Your task to perform on an android device: Clear the shopping cart on amazon. Search for "bose soundlink" on amazon, select the first entry, add it to the cart, then select checkout. Image 0: 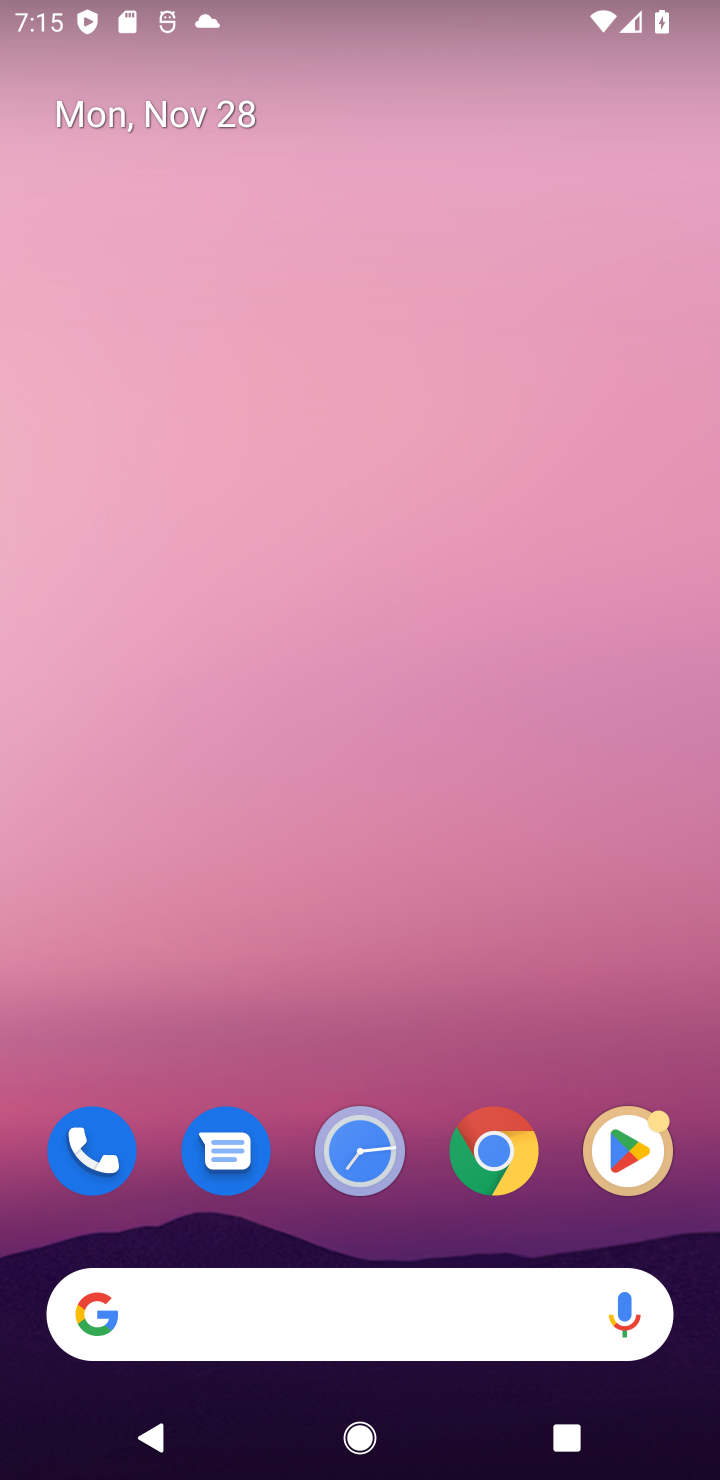
Step 0: click (429, 1322)
Your task to perform on an android device: Clear the shopping cart on amazon. Search for "bose soundlink" on amazon, select the first entry, add it to the cart, then select checkout. Image 1: 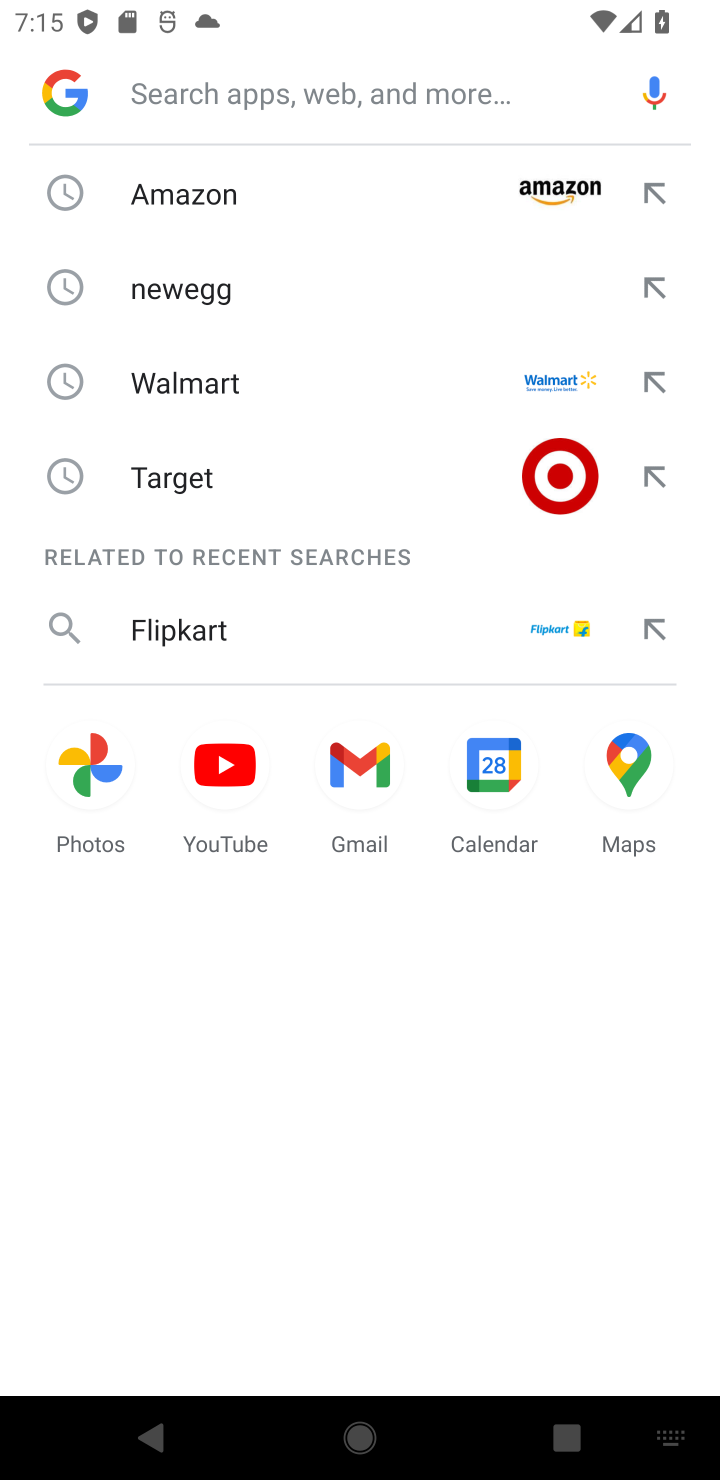
Step 1: type "a"
Your task to perform on an android device: Clear the shopping cart on amazon. Search for "bose soundlink" on amazon, select the first entry, add it to the cart, then select checkout. Image 2: 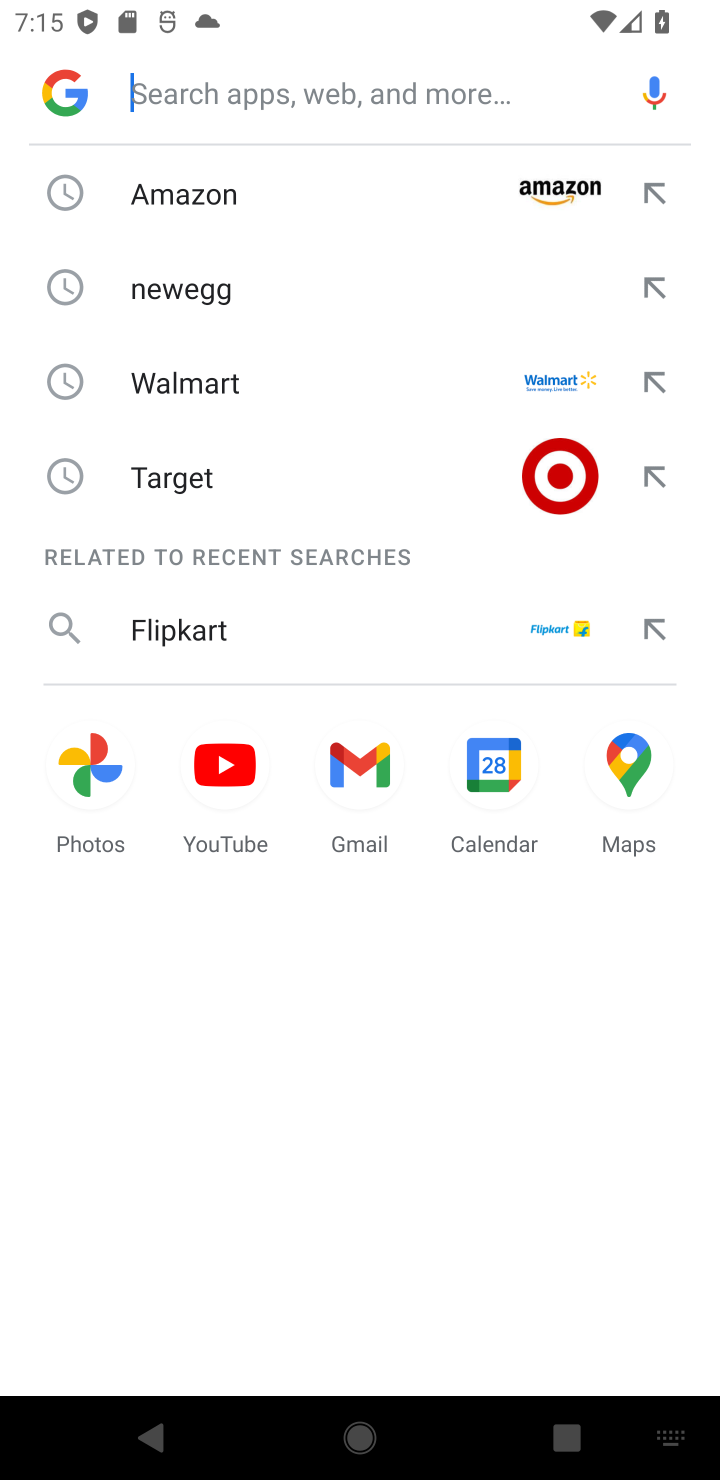
Step 2: click (254, 221)
Your task to perform on an android device: Clear the shopping cart on amazon. Search for "bose soundlink" on amazon, select the first entry, add it to the cart, then select checkout. Image 3: 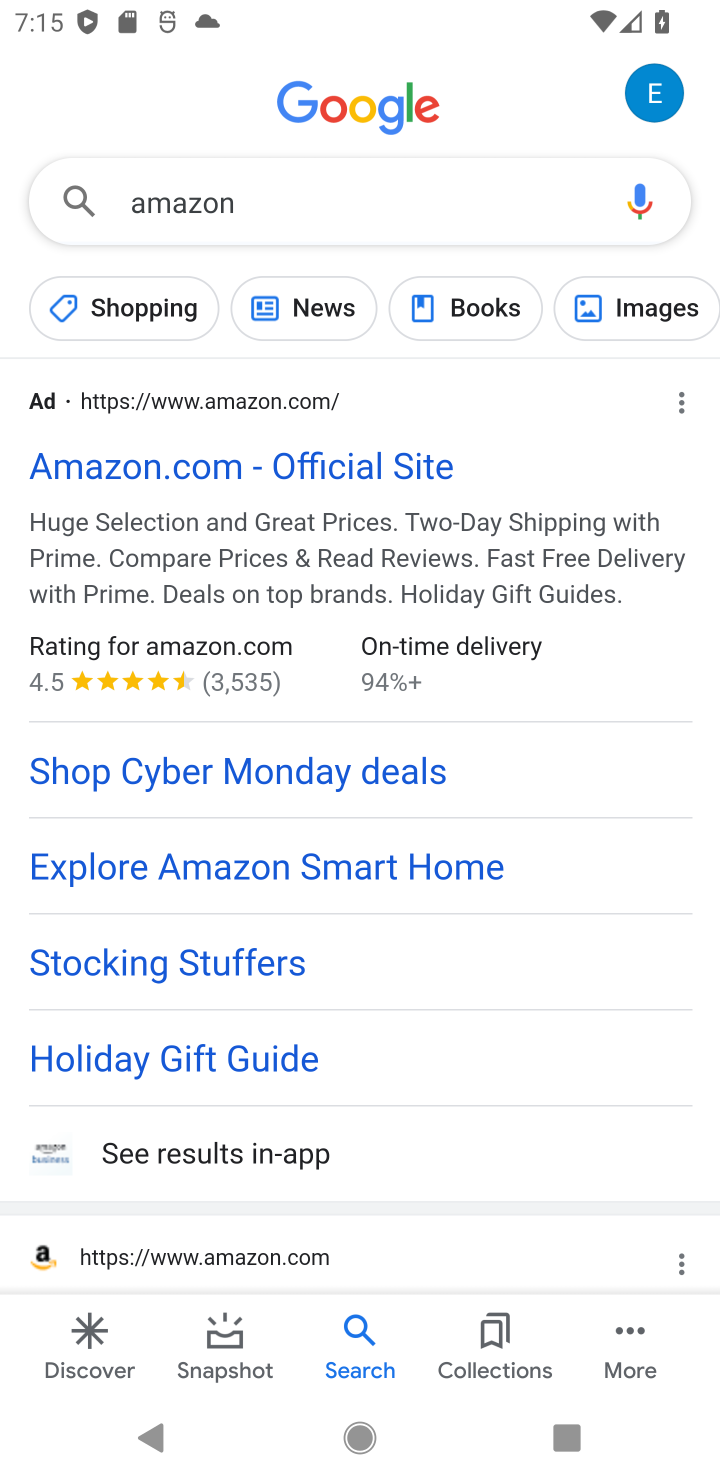
Step 3: click (236, 464)
Your task to perform on an android device: Clear the shopping cart on amazon. Search for "bose soundlink" on amazon, select the first entry, add it to the cart, then select checkout. Image 4: 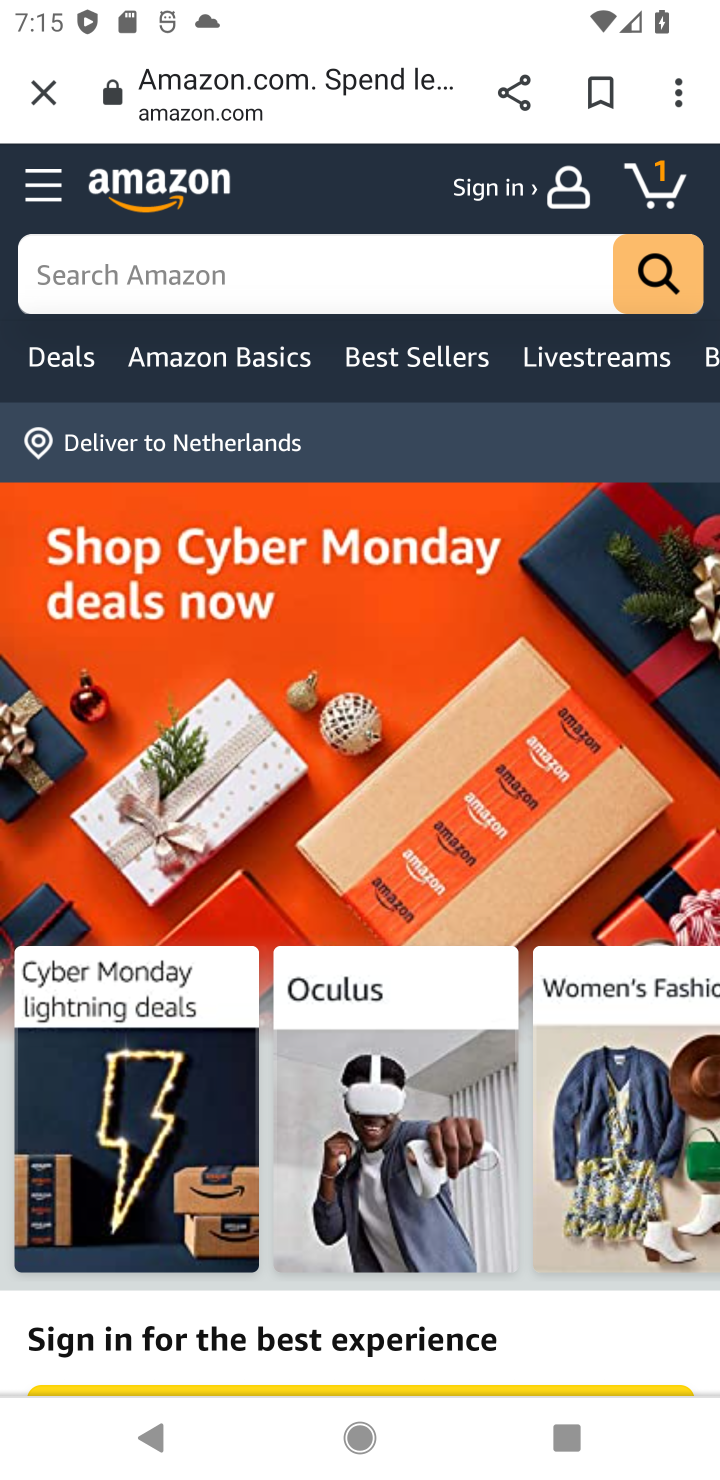
Step 4: click (366, 260)
Your task to perform on an android device: Clear the shopping cart on amazon. Search for "bose soundlink" on amazon, select the first entry, add it to the cart, then select checkout. Image 5: 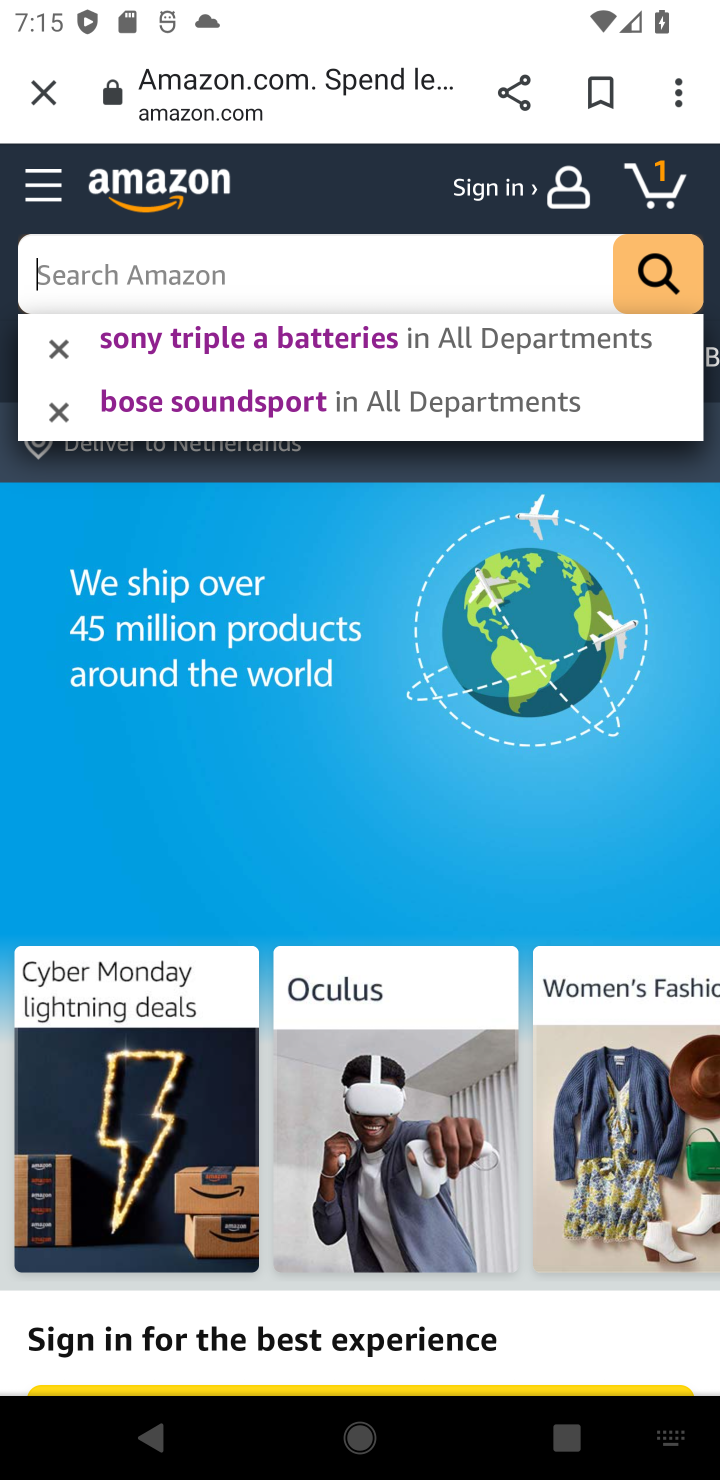
Step 5: type "bose soundlink"
Your task to perform on an android device: Clear the shopping cart on amazon. Search for "bose soundlink" on amazon, select the first entry, add it to the cart, then select checkout. Image 6: 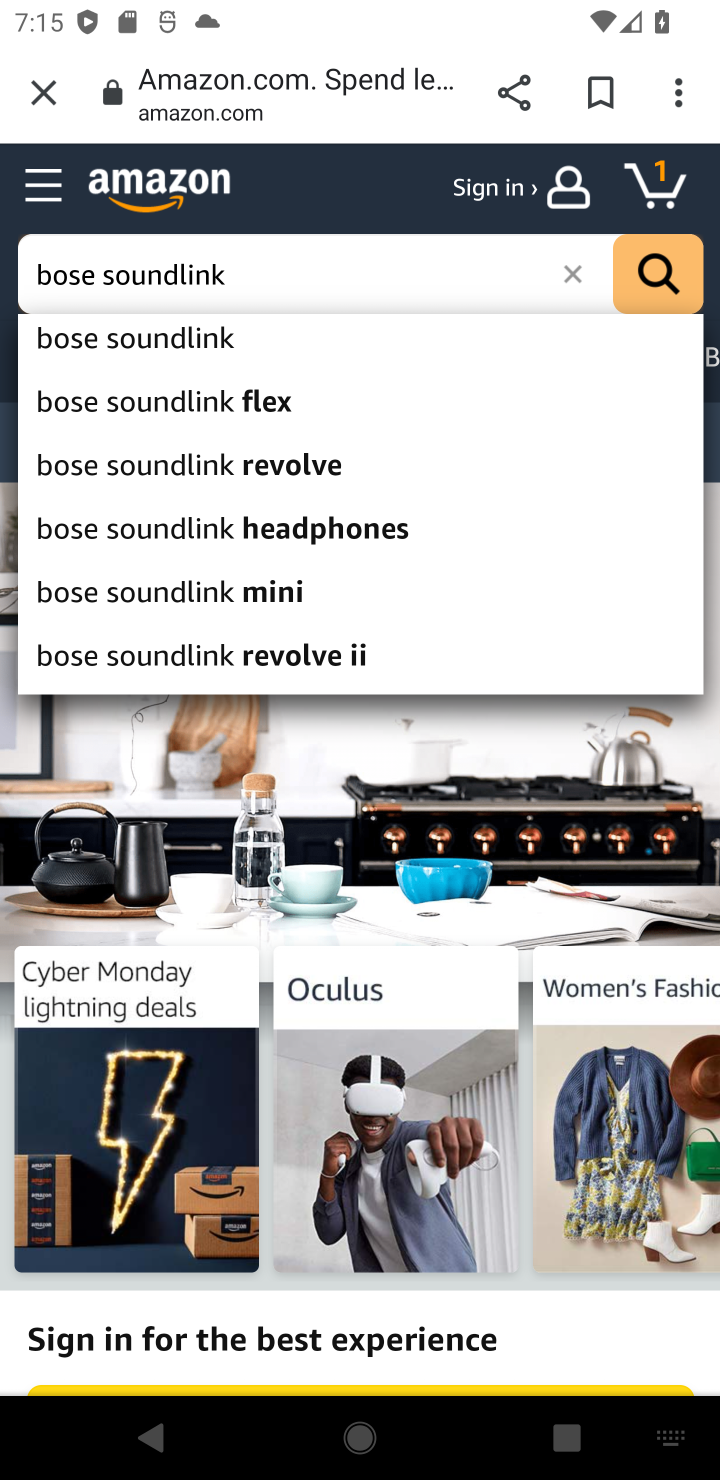
Step 6: click (166, 343)
Your task to perform on an android device: Clear the shopping cart on amazon. Search for "bose soundlink" on amazon, select the first entry, add it to the cart, then select checkout. Image 7: 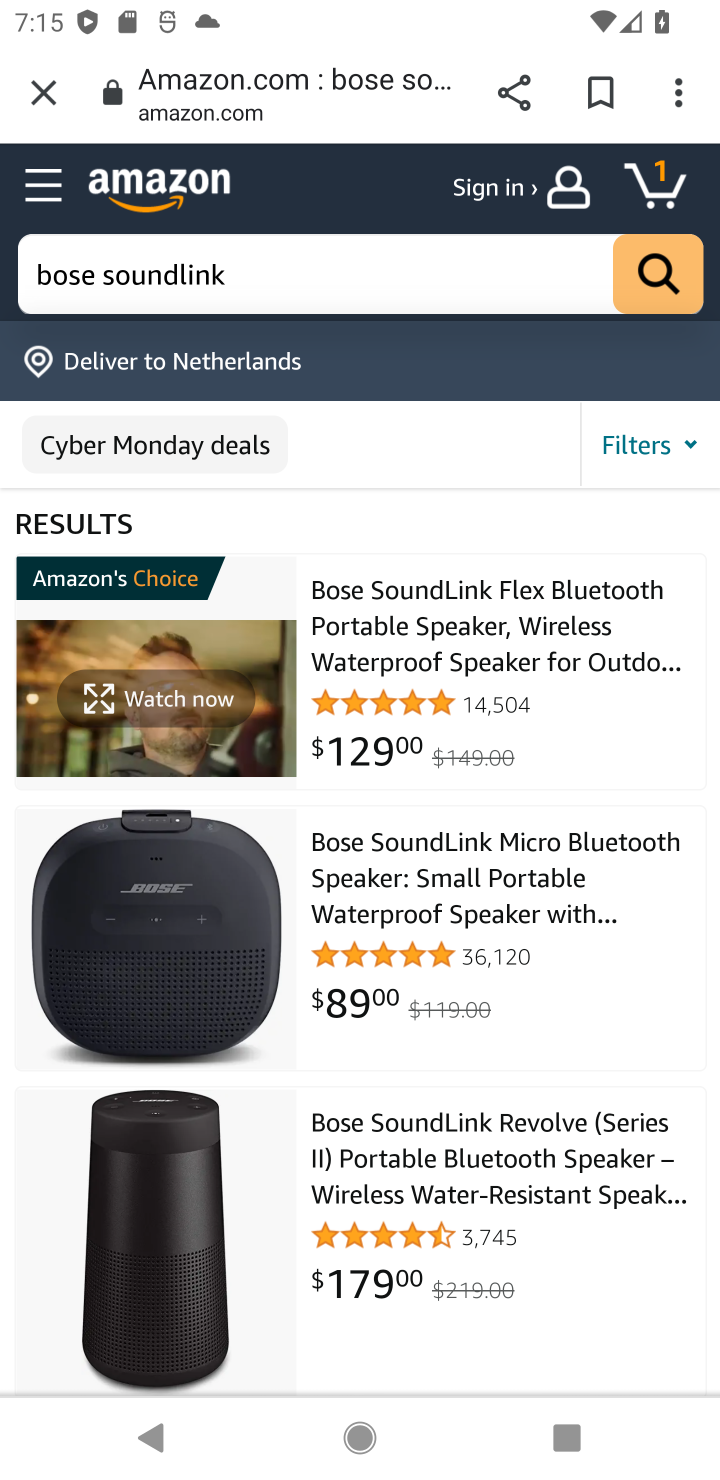
Step 7: click (369, 644)
Your task to perform on an android device: Clear the shopping cart on amazon. Search for "bose soundlink" on amazon, select the first entry, add it to the cart, then select checkout. Image 8: 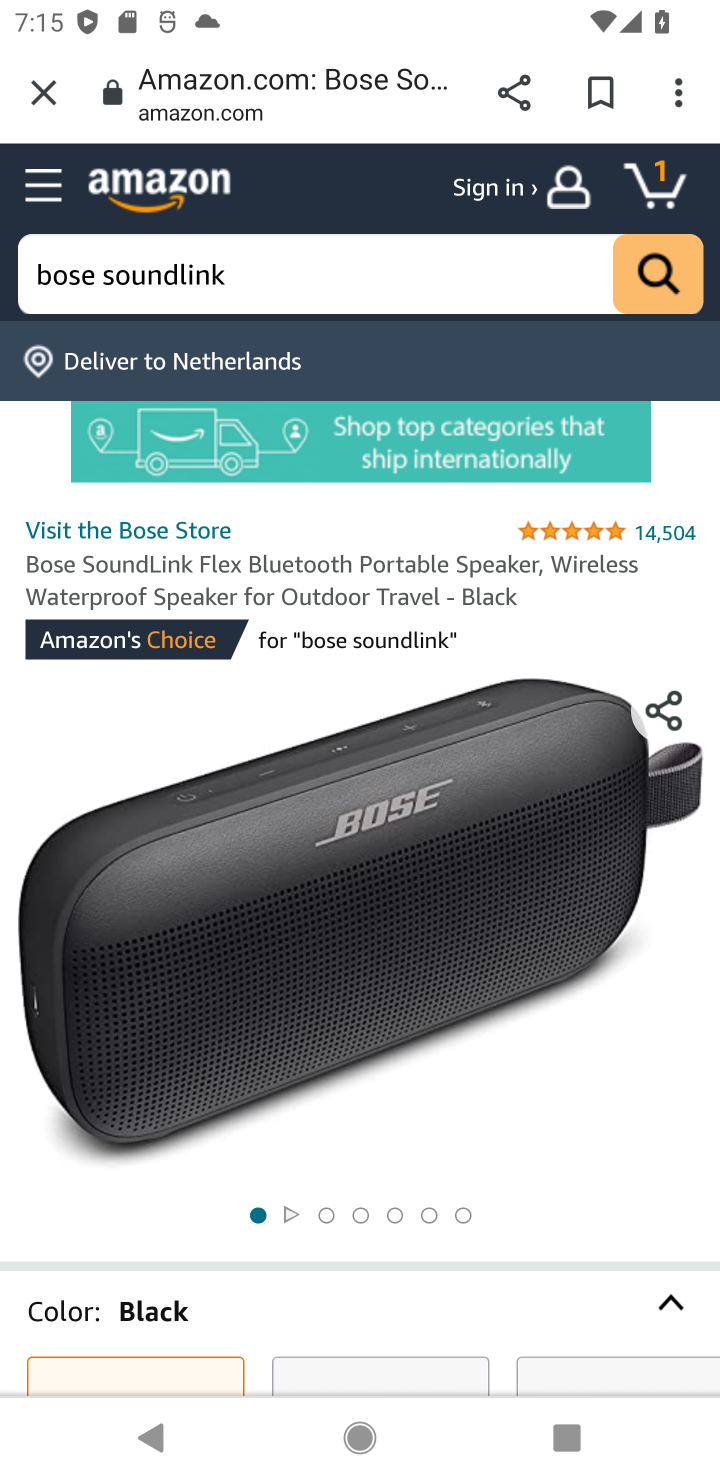
Step 8: task complete